Your task to perform on an android device: open chrome and create a bookmark for the current page Image 0: 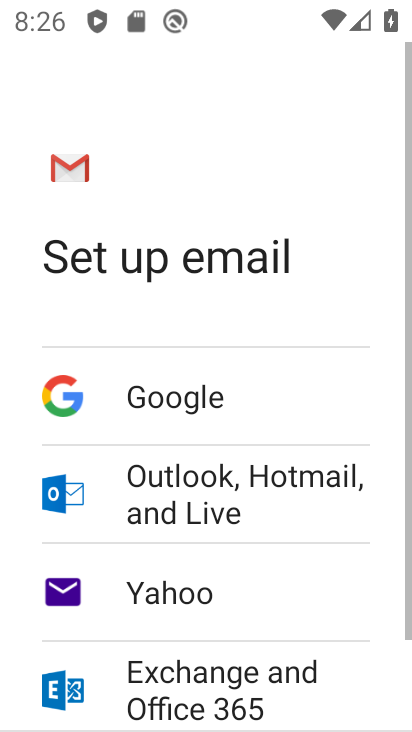
Step 0: press home button
Your task to perform on an android device: open chrome and create a bookmark for the current page Image 1: 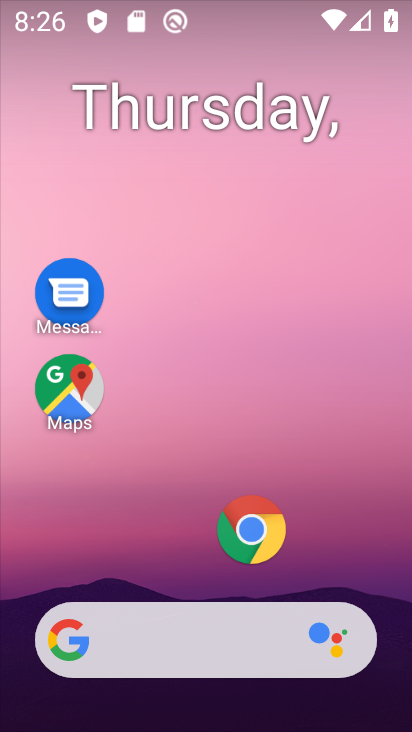
Step 1: click (263, 523)
Your task to perform on an android device: open chrome and create a bookmark for the current page Image 2: 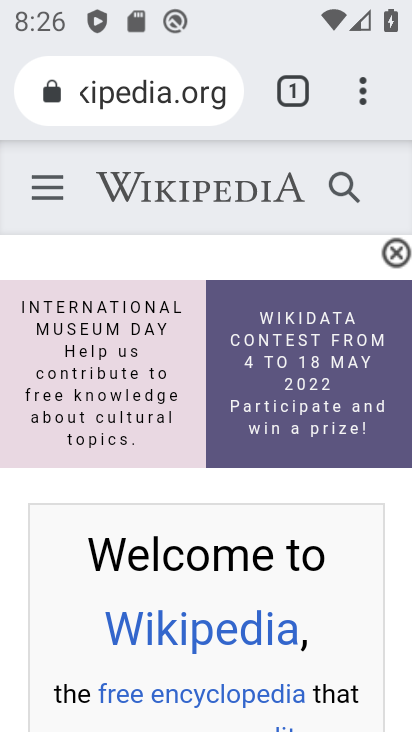
Step 2: click (378, 97)
Your task to perform on an android device: open chrome and create a bookmark for the current page Image 3: 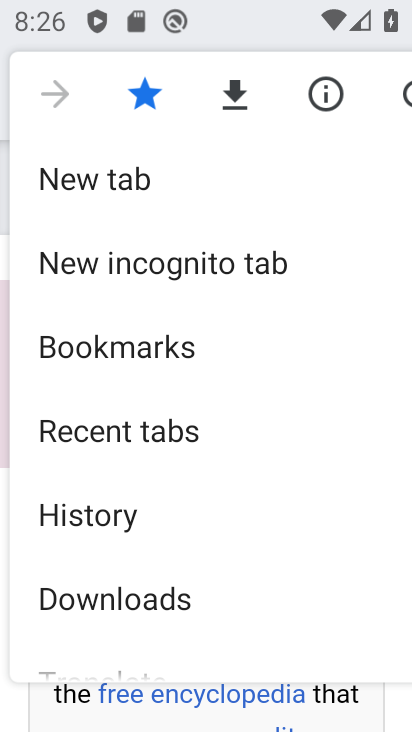
Step 3: task complete